Your task to perform on an android device: Open accessibility settings Image 0: 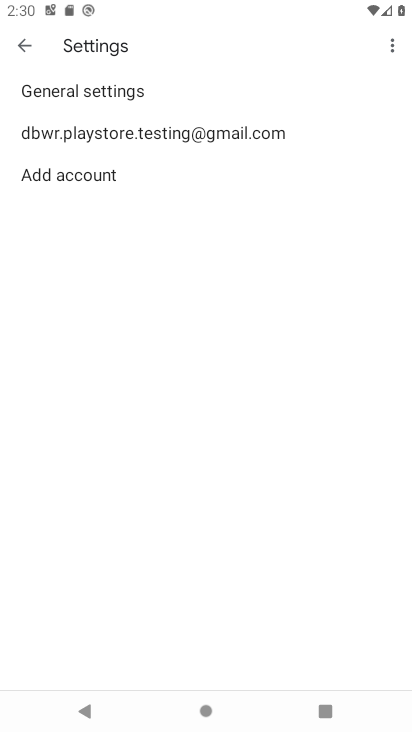
Step 0: press home button
Your task to perform on an android device: Open accessibility settings Image 1: 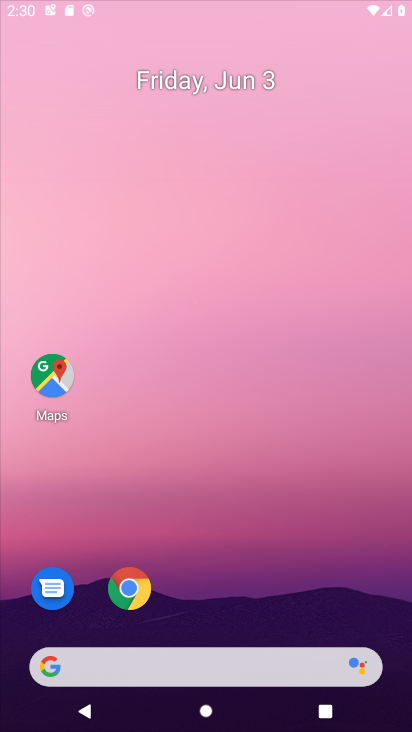
Step 1: drag from (262, 637) to (101, 25)
Your task to perform on an android device: Open accessibility settings Image 2: 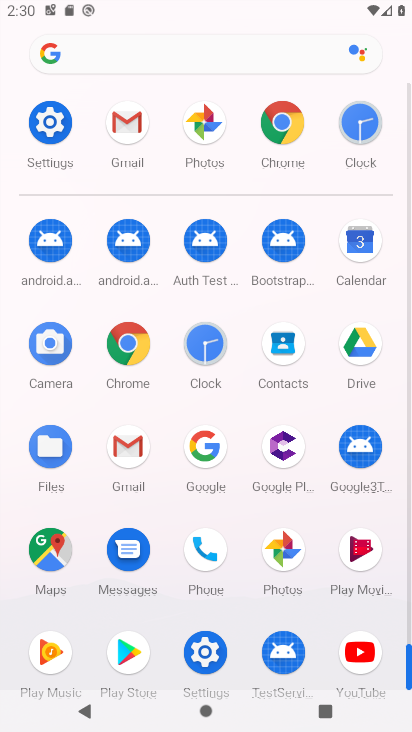
Step 2: click (46, 137)
Your task to perform on an android device: Open accessibility settings Image 3: 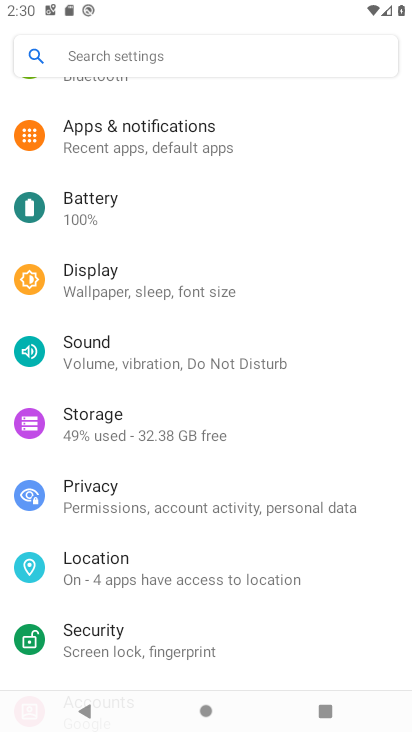
Step 3: drag from (120, 472) to (100, 29)
Your task to perform on an android device: Open accessibility settings Image 4: 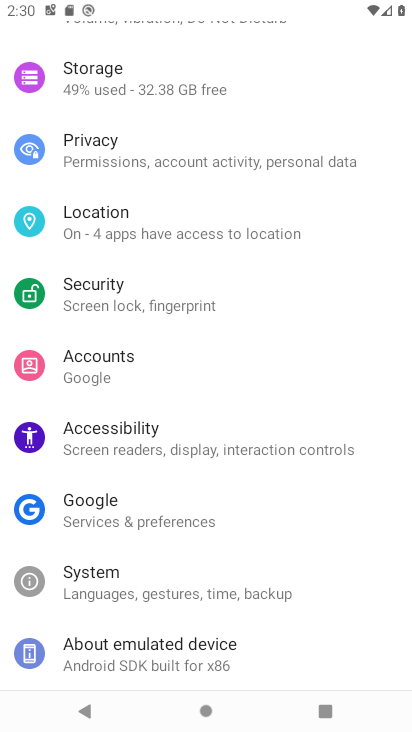
Step 4: drag from (180, 463) to (204, 156)
Your task to perform on an android device: Open accessibility settings Image 5: 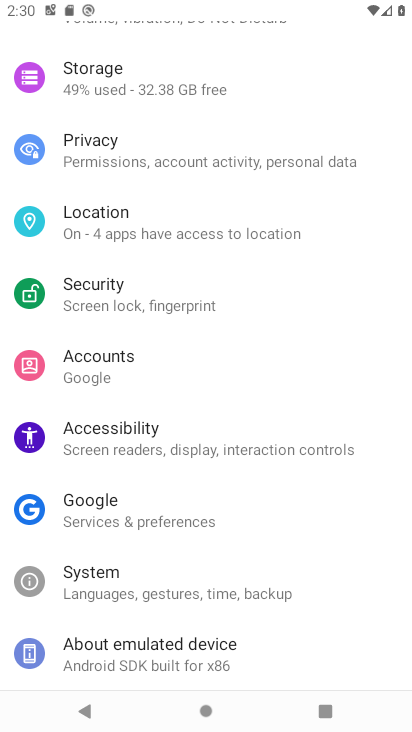
Step 5: click (225, 446)
Your task to perform on an android device: Open accessibility settings Image 6: 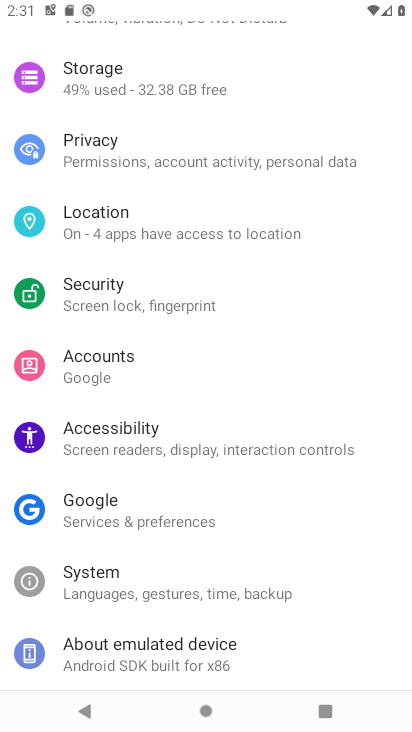
Step 6: click (136, 454)
Your task to perform on an android device: Open accessibility settings Image 7: 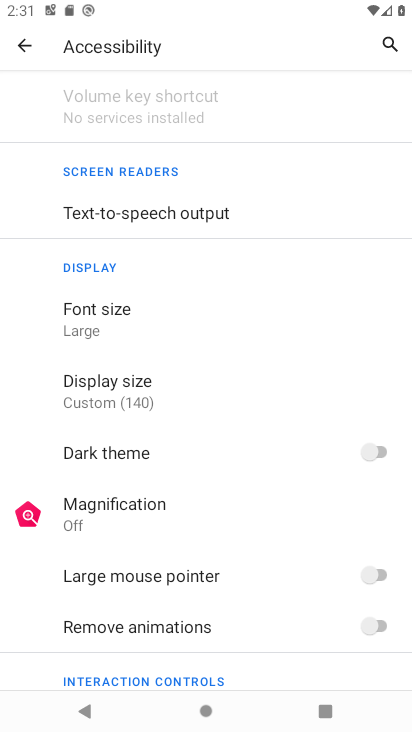
Step 7: task complete